Your task to perform on an android device: Open CNN.com Image 0: 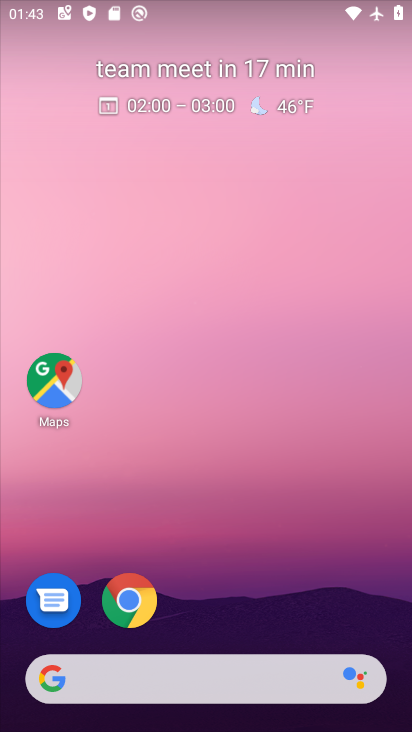
Step 0: click (134, 599)
Your task to perform on an android device: Open CNN.com Image 1: 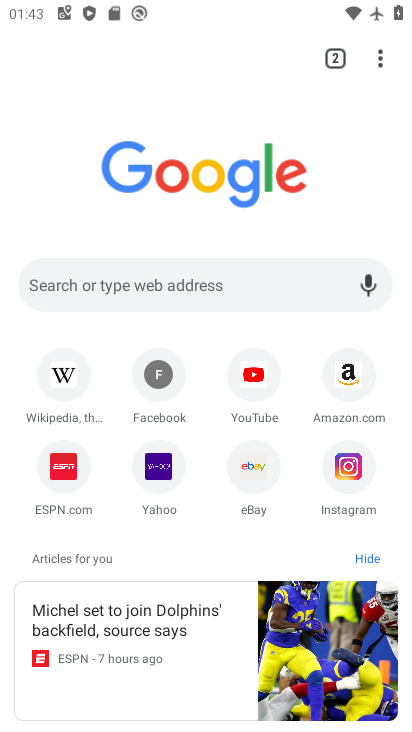
Step 1: click (125, 289)
Your task to perform on an android device: Open CNN.com Image 2: 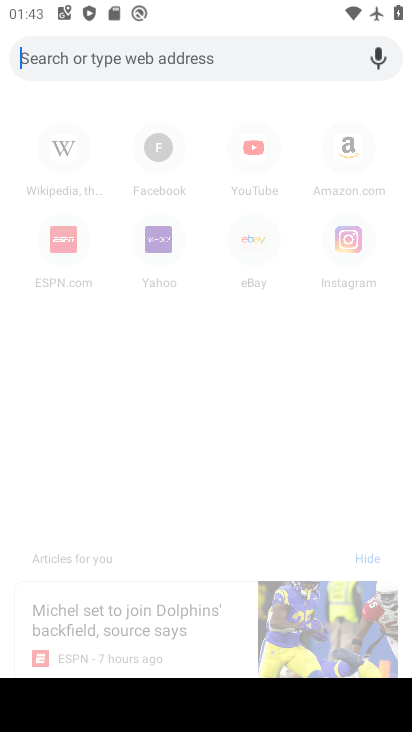
Step 2: type "cnn"
Your task to perform on an android device: Open CNN.com Image 3: 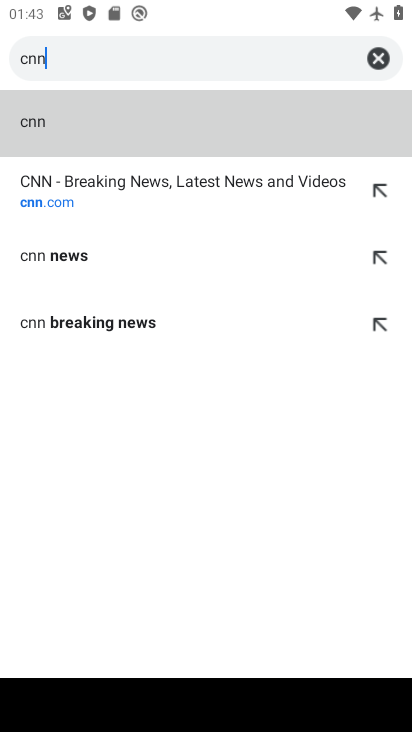
Step 3: type ""
Your task to perform on an android device: Open CNN.com Image 4: 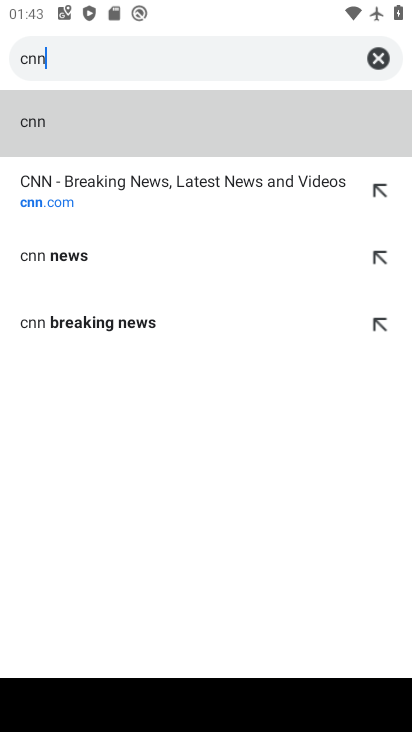
Step 4: click (93, 204)
Your task to perform on an android device: Open CNN.com Image 5: 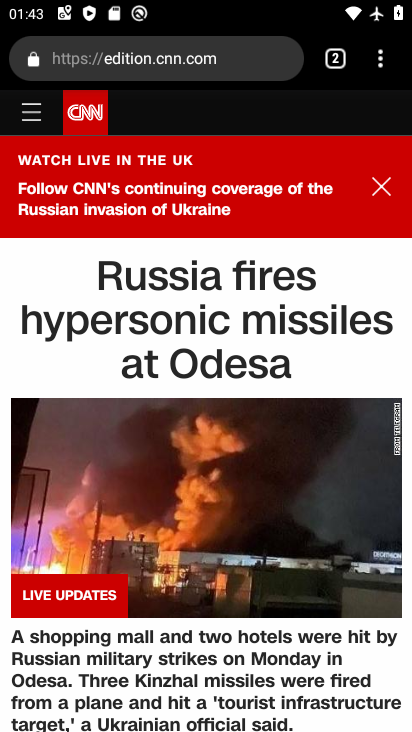
Step 5: task complete